Your task to perform on an android device: Search for vegetarian restaurants on Maps Image 0: 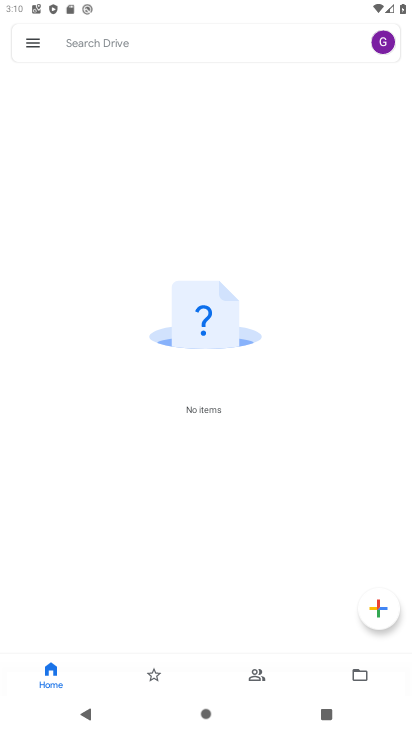
Step 0: press home button
Your task to perform on an android device: Search for vegetarian restaurants on Maps Image 1: 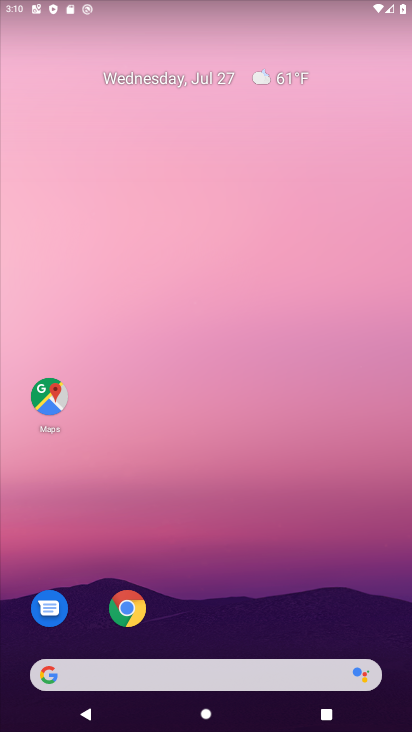
Step 1: click (49, 391)
Your task to perform on an android device: Search for vegetarian restaurants on Maps Image 2: 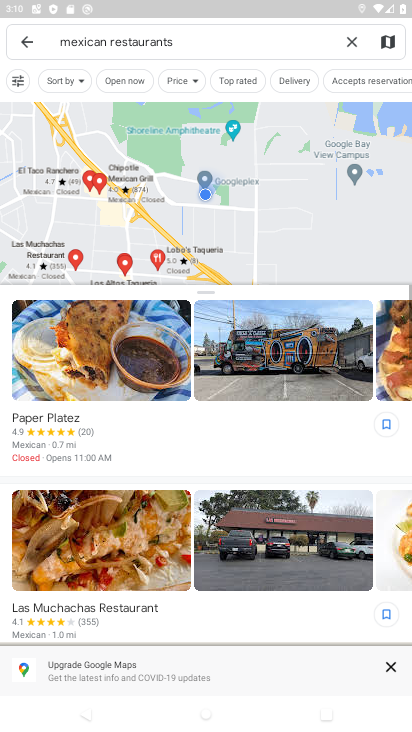
Step 2: click (346, 44)
Your task to perform on an android device: Search for vegetarian restaurants on Maps Image 3: 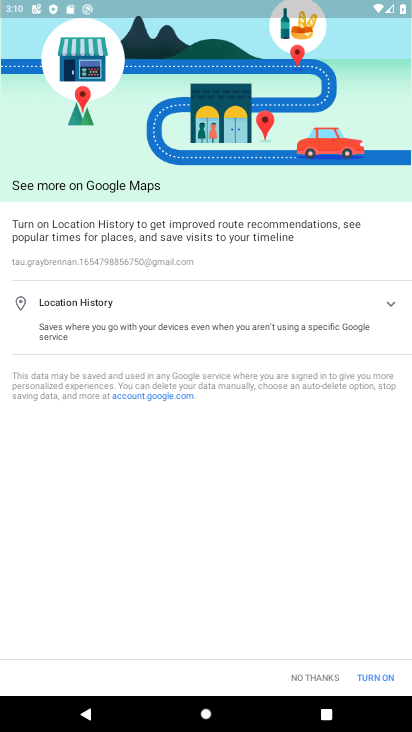
Step 3: click (368, 678)
Your task to perform on an android device: Search for vegetarian restaurants on Maps Image 4: 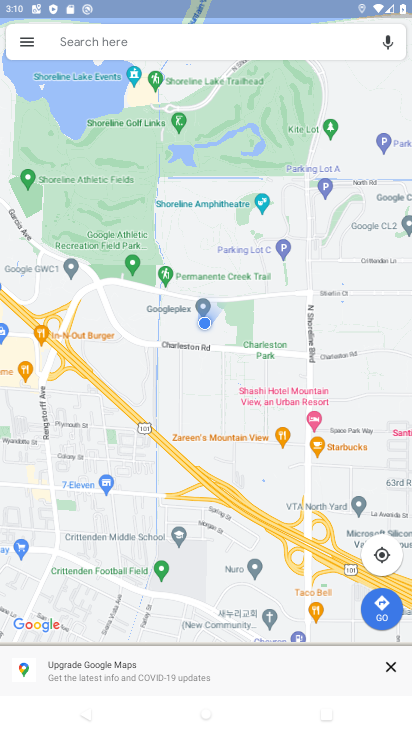
Step 4: click (263, 46)
Your task to perform on an android device: Search for vegetarian restaurants on Maps Image 5: 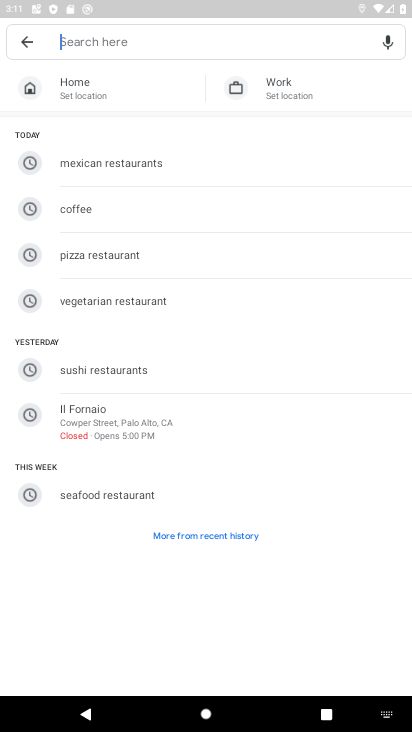
Step 5: type "vegetarian restaurants"
Your task to perform on an android device: Search for vegetarian restaurants on Maps Image 6: 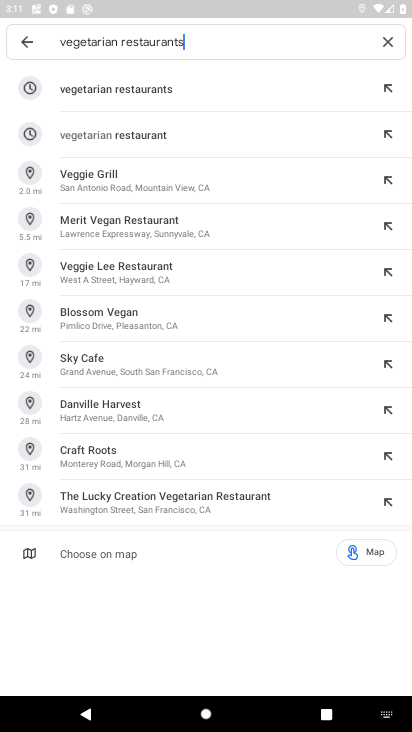
Step 6: click (135, 79)
Your task to perform on an android device: Search for vegetarian restaurants on Maps Image 7: 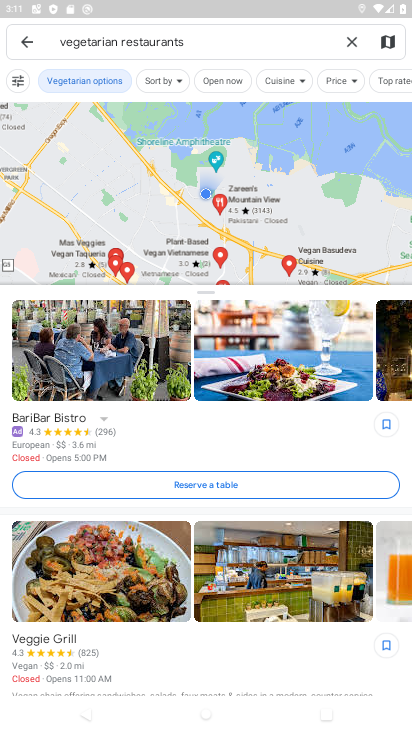
Step 7: task complete